Your task to perform on an android device: Open internet settings Image 0: 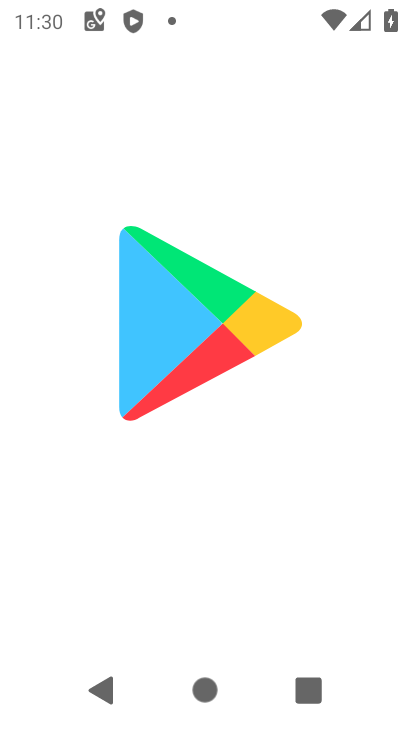
Step 0: drag from (216, 545) to (222, 206)
Your task to perform on an android device: Open internet settings Image 1: 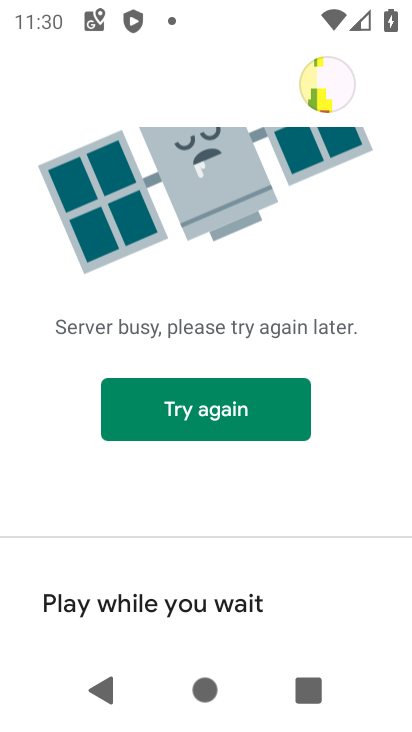
Step 1: press home button
Your task to perform on an android device: Open internet settings Image 2: 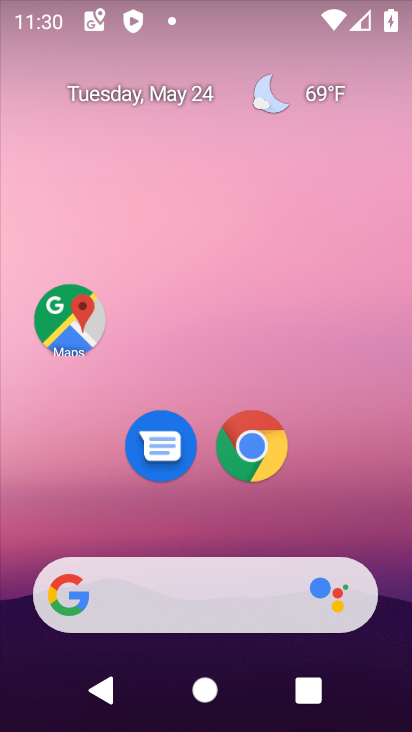
Step 2: drag from (210, 555) to (222, 190)
Your task to perform on an android device: Open internet settings Image 3: 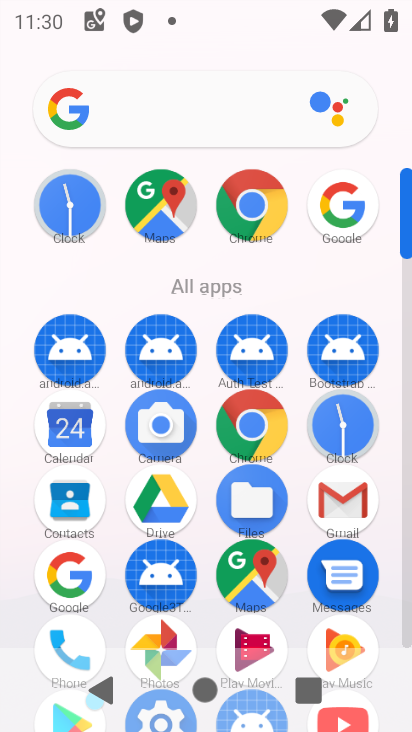
Step 3: drag from (207, 627) to (190, 287)
Your task to perform on an android device: Open internet settings Image 4: 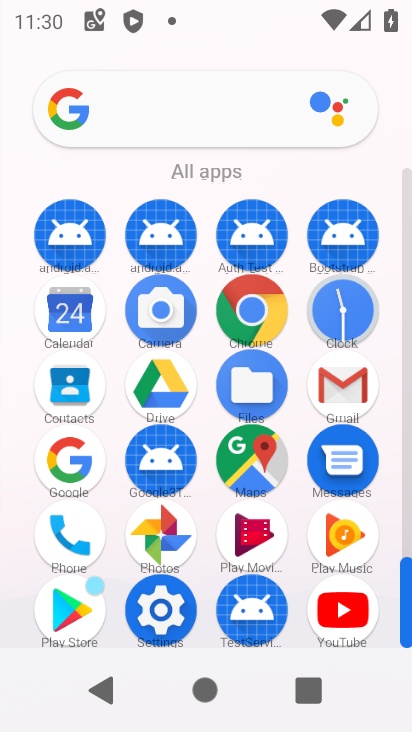
Step 4: click (163, 616)
Your task to perform on an android device: Open internet settings Image 5: 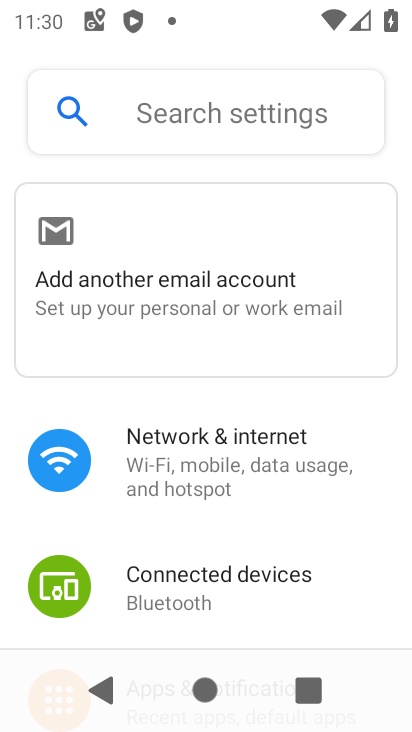
Step 5: click (161, 460)
Your task to perform on an android device: Open internet settings Image 6: 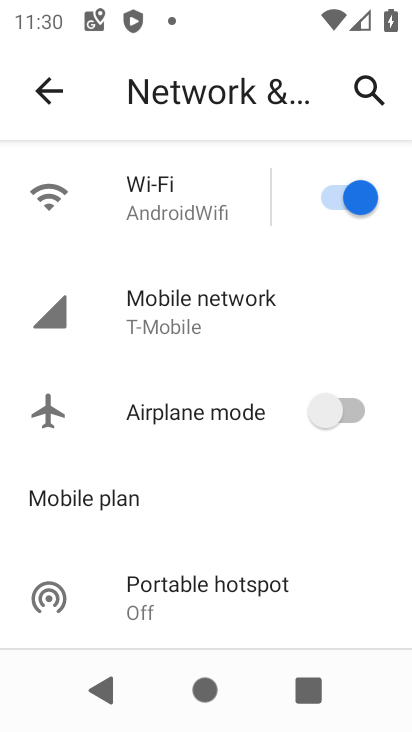
Step 6: click (181, 307)
Your task to perform on an android device: Open internet settings Image 7: 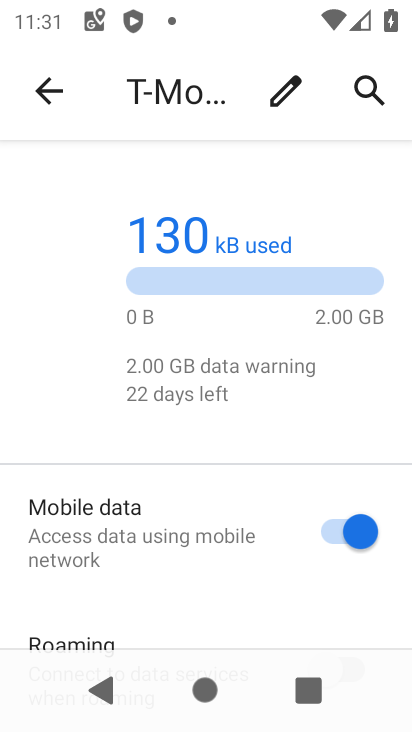
Step 7: drag from (236, 605) to (267, 80)
Your task to perform on an android device: Open internet settings Image 8: 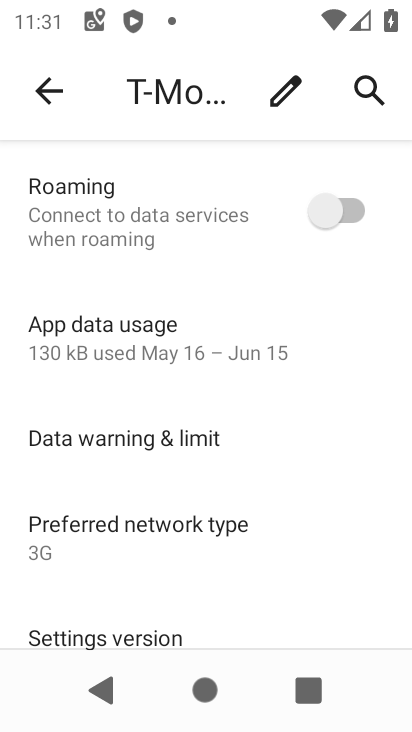
Step 8: drag from (237, 634) to (248, 205)
Your task to perform on an android device: Open internet settings Image 9: 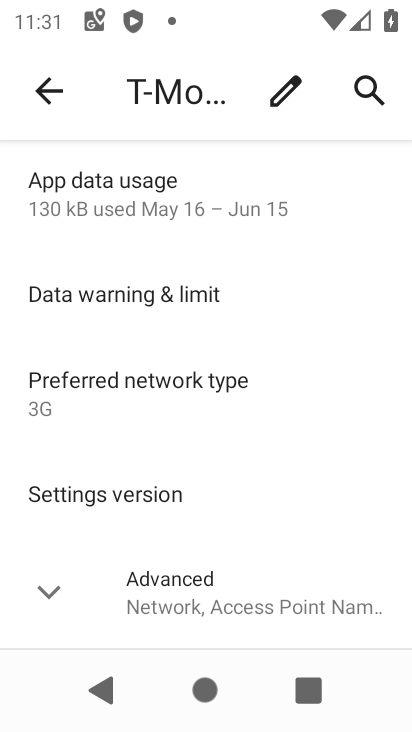
Step 9: click (209, 608)
Your task to perform on an android device: Open internet settings Image 10: 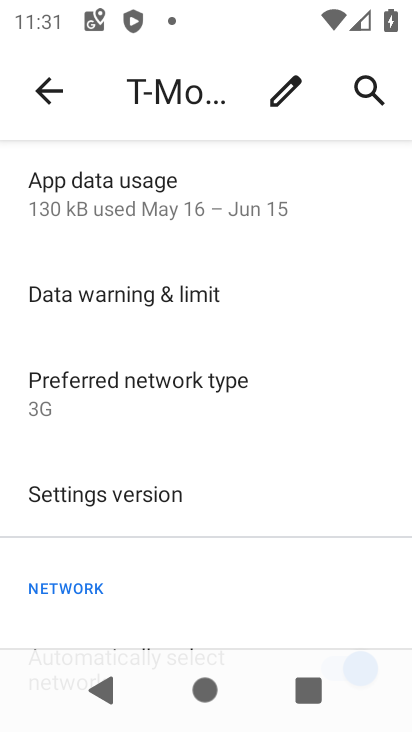
Step 10: task complete